Your task to perform on an android device: Open Amazon Image 0: 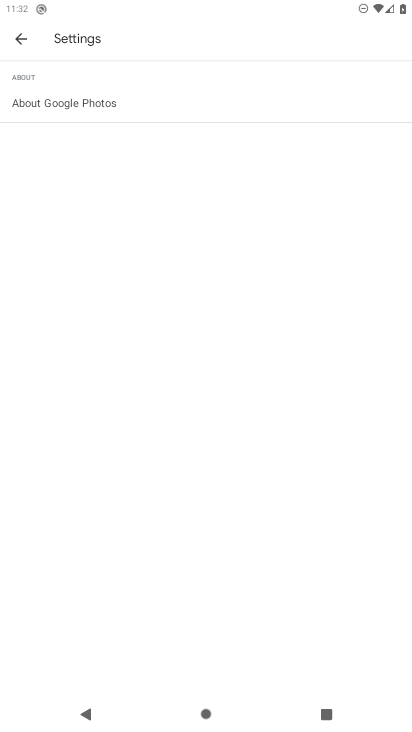
Step 0: drag from (295, 489) to (299, 178)
Your task to perform on an android device: Open Amazon Image 1: 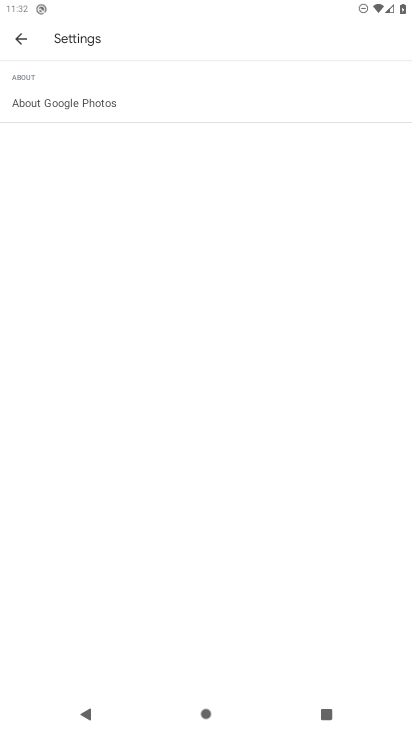
Step 1: drag from (218, 470) to (315, 158)
Your task to perform on an android device: Open Amazon Image 2: 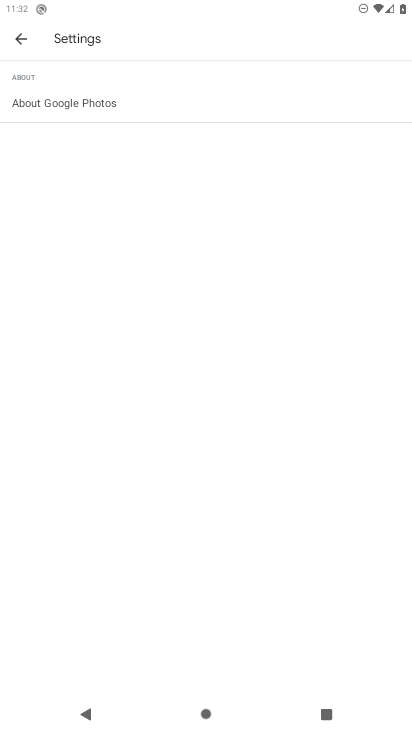
Step 2: press home button
Your task to perform on an android device: Open Amazon Image 3: 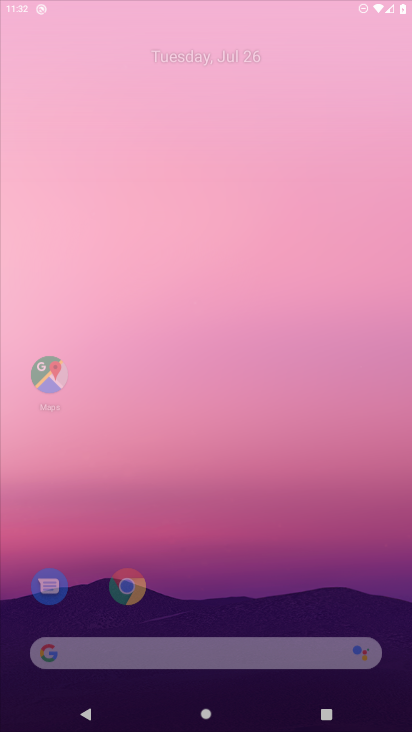
Step 3: drag from (194, 486) to (185, 138)
Your task to perform on an android device: Open Amazon Image 4: 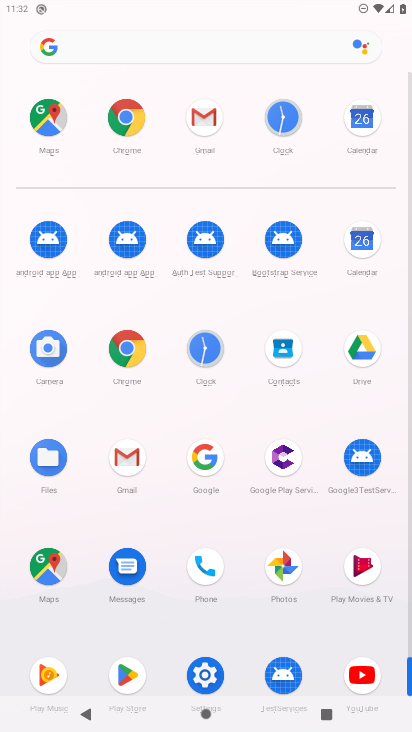
Step 4: drag from (252, 613) to (256, 242)
Your task to perform on an android device: Open Amazon Image 5: 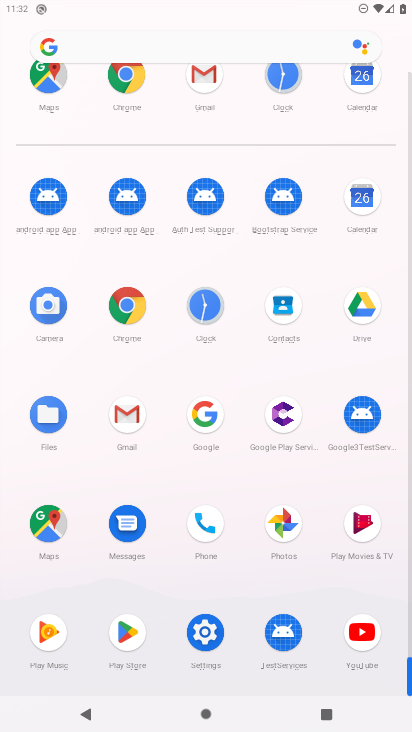
Step 5: click (118, 297)
Your task to perform on an android device: Open Amazon Image 6: 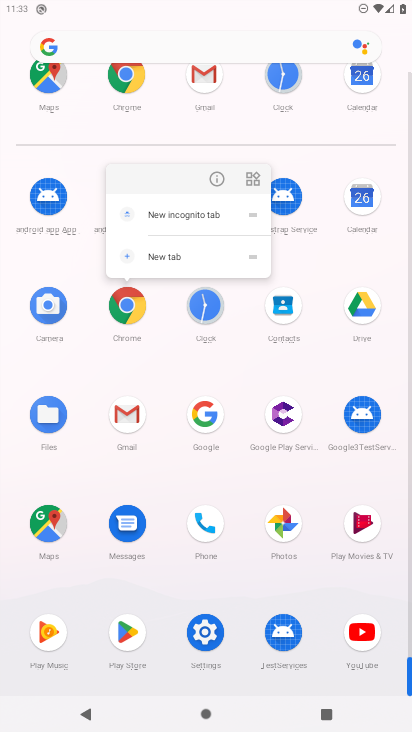
Step 6: click (214, 180)
Your task to perform on an android device: Open Amazon Image 7: 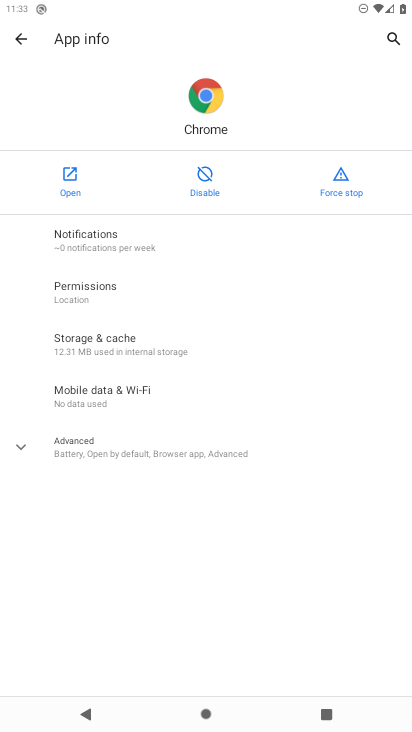
Step 7: click (62, 174)
Your task to perform on an android device: Open Amazon Image 8: 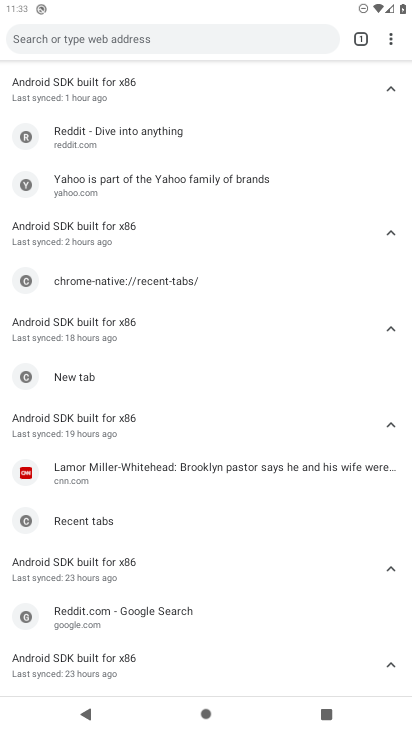
Step 8: drag from (202, 180) to (203, 601)
Your task to perform on an android device: Open Amazon Image 9: 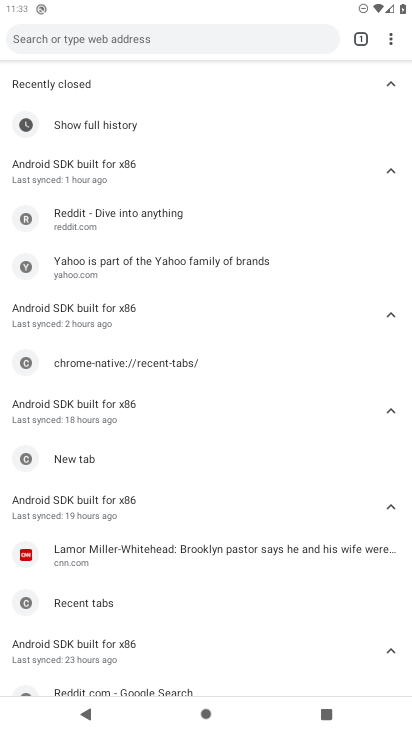
Step 9: drag from (188, 669) to (253, 450)
Your task to perform on an android device: Open Amazon Image 10: 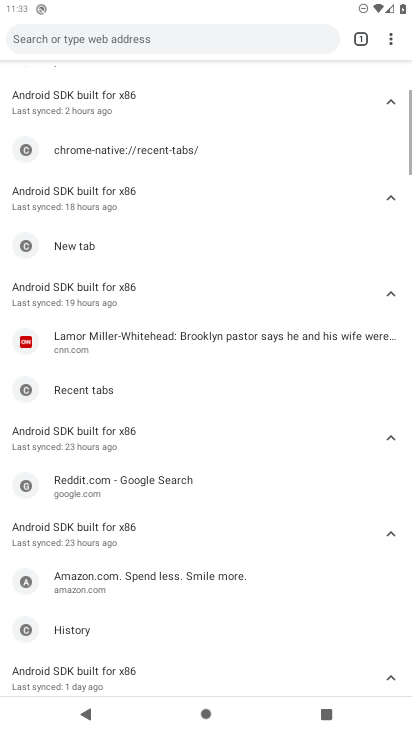
Step 10: drag from (222, 120) to (198, 603)
Your task to perform on an android device: Open Amazon Image 11: 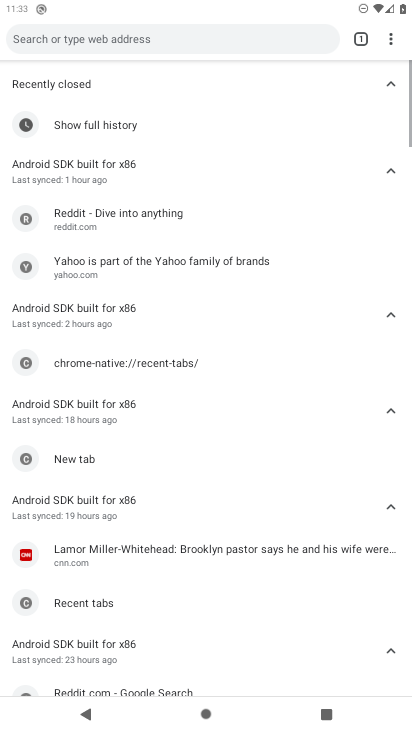
Step 11: click (61, 44)
Your task to perform on an android device: Open Amazon Image 12: 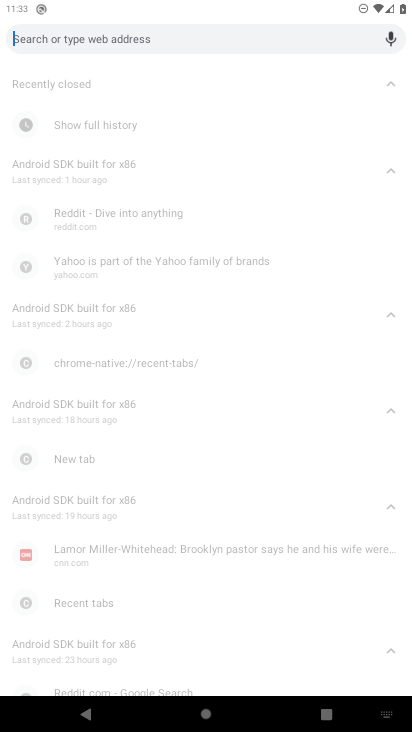
Step 12: type "amazon"
Your task to perform on an android device: Open Amazon Image 13: 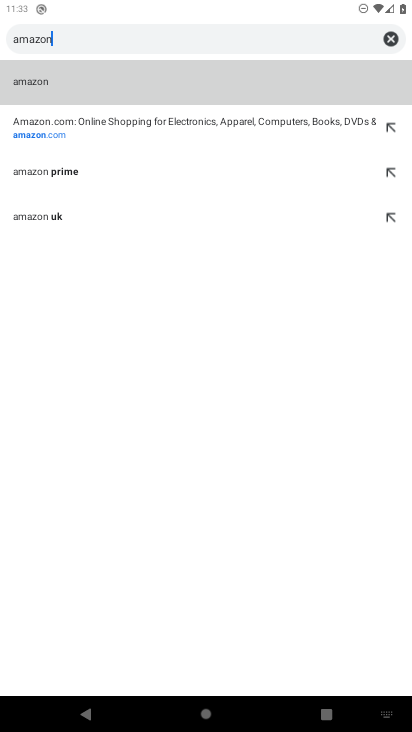
Step 13: click (41, 122)
Your task to perform on an android device: Open Amazon Image 14: 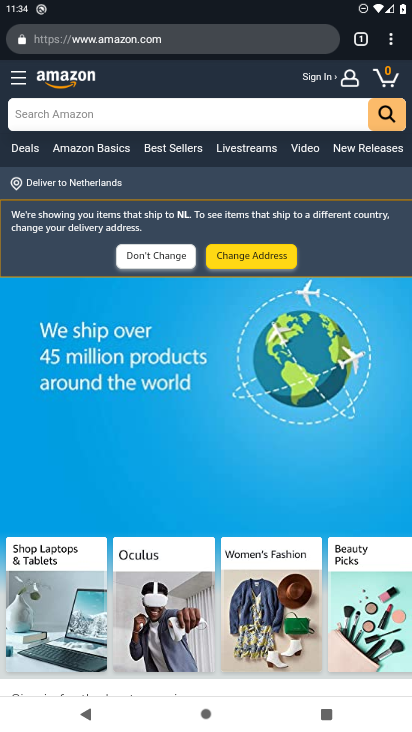
Step 14: task complete